Your task to perform on an android device: Turn off the flashlight Image 0: 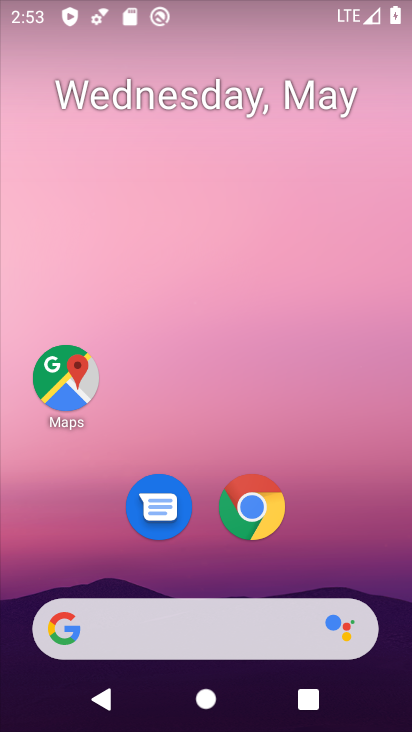
Step 0: drag from (352, 517) to (280, 34)
Your task to perform on an android device: Turn off the flashlight Image 1: 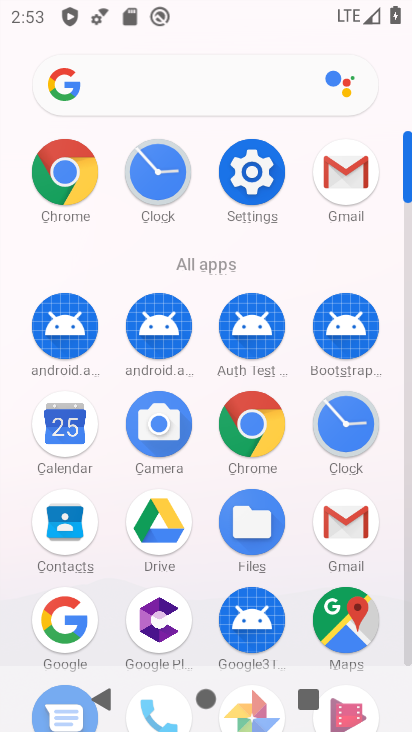
Step 1: drag from (4, 590) to (5, 251)
Your task to perform on an android device: Turn off the flashlight Image 2: 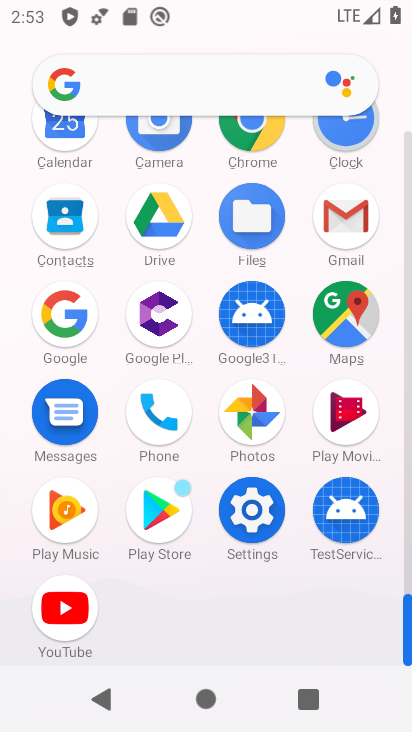
Step 2: click (250, 509)
Your task to perform on an android device: Turn off the flashlight Image 3: 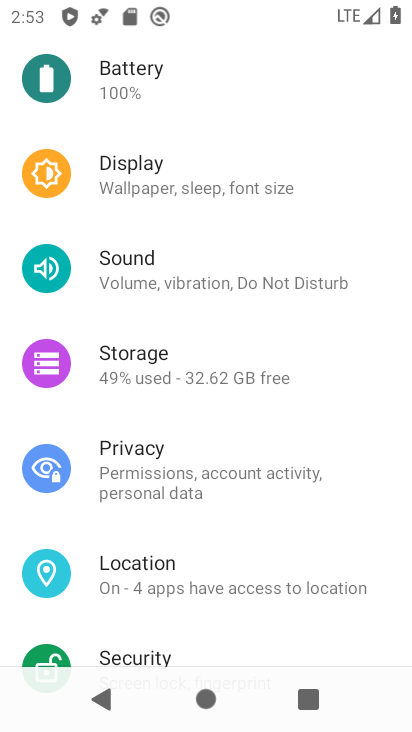
Step 3: drag from (232, 177) to (242, 579)
Your task to perform on an android device: Turn off the flashlight Image 4: 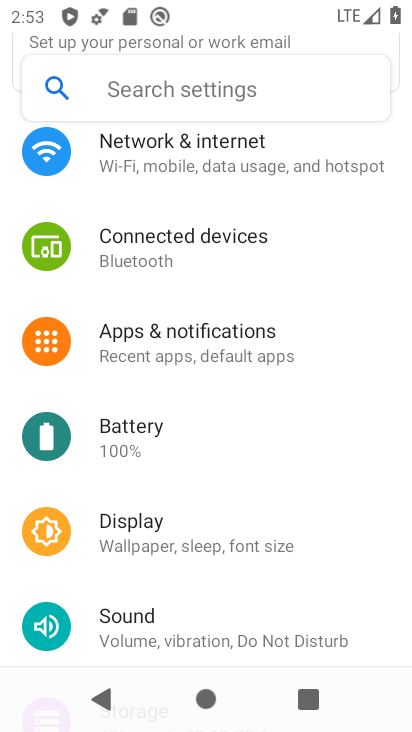
Step 4: drag from (243, 240) to (275, 588)
Your task to perform on an android device: Turn off the flashlight Image 5: 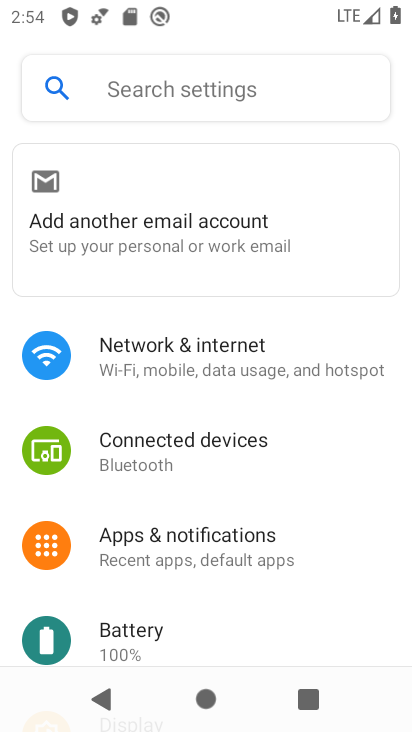
Step 5: drag from (221, 548) to (204, 318)
Your task to perform on an android device: Turn off the flashlight Image 6: 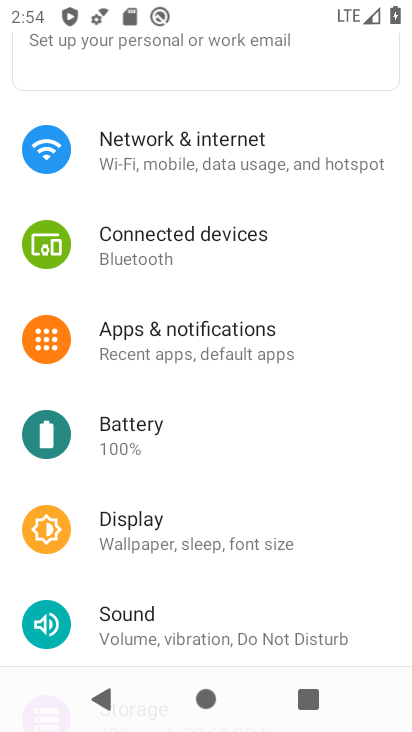
Step 6: click (207, 142)
Your task to perform on an android device: Turn off the flashlight Image 7: 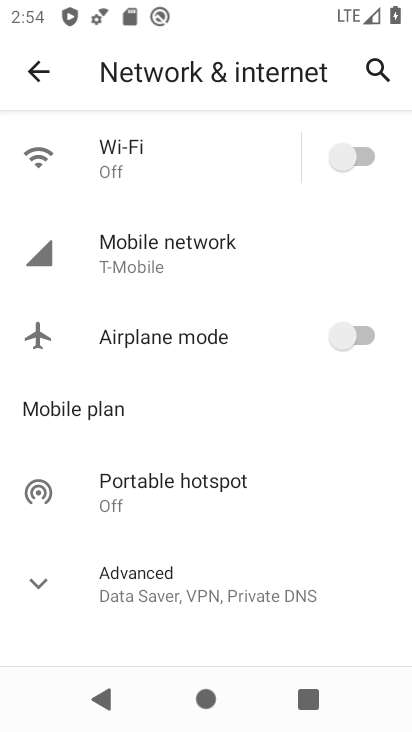
Step 7: click (31, 592)
Your task to perform on an android device: Turn off the flashlight Image 8: 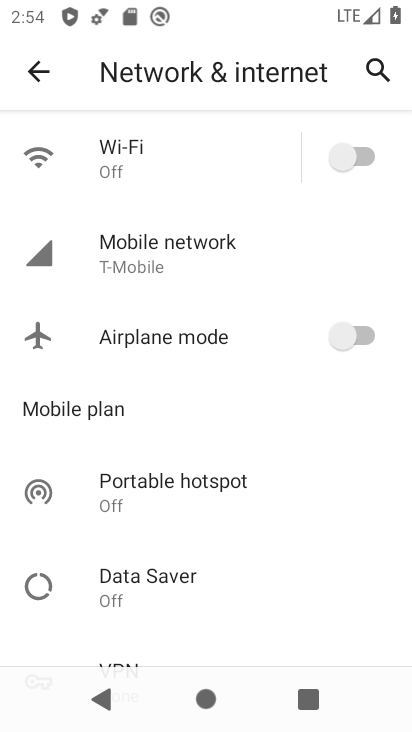
Step 8: task complete